Your task to perform on an android device: toggle javascript in the chrome app Image 0: 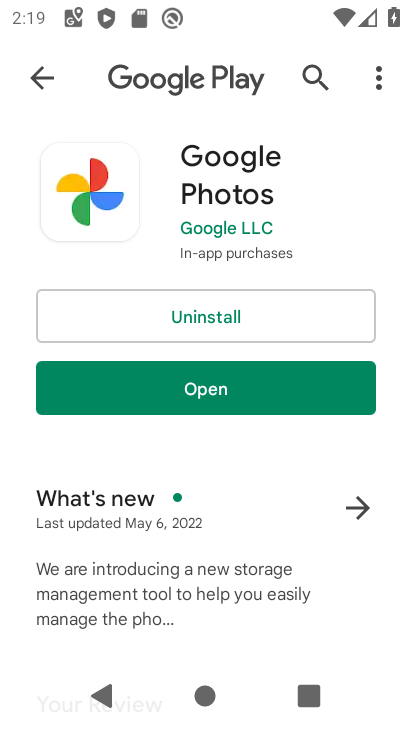
Step 0: press home button
Your task to perform on an android device: toggle javascript in the chrome app Image 1: 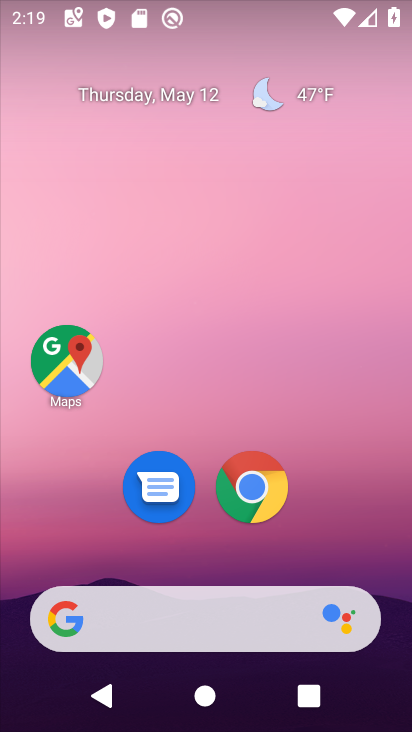
Step 1: click (252, 484)
Your task to perform on an android device: toggle javascript in the chrome app Image 2: 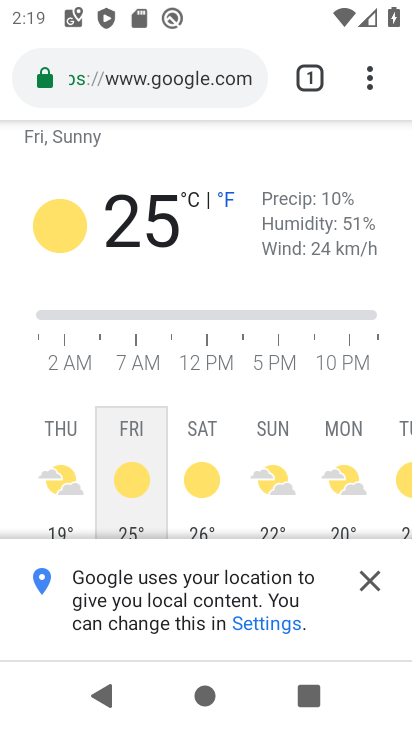
Step 2: drag from (372, 78) to (363, 322)
Your task to perform on an android device: toggle javascript in the chrome app Image 3: 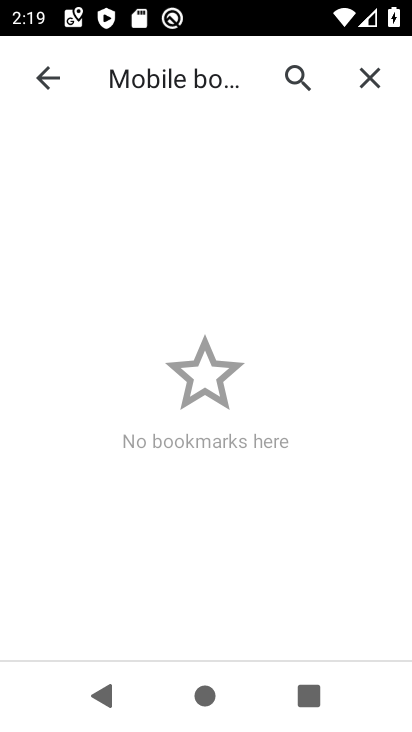
Step 3: click (365, 71)
Your task to perform on an android device: toggle javascript in the chrome app Image 4: 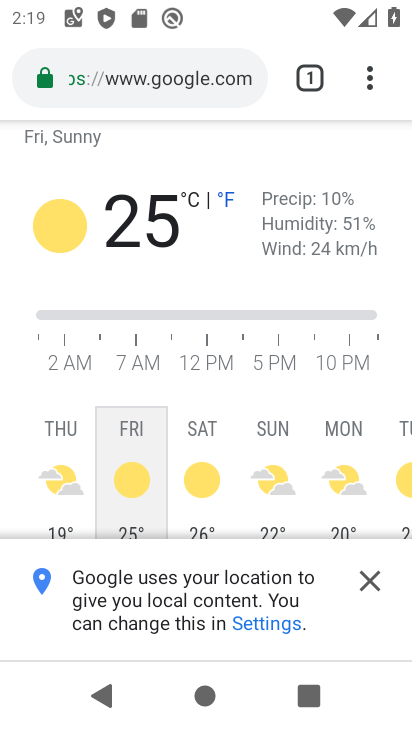
Step 4: drag from (371, 71) to (147, 564)
Your task to perform on an android device: toggle javascript in the chrome app Image 5: 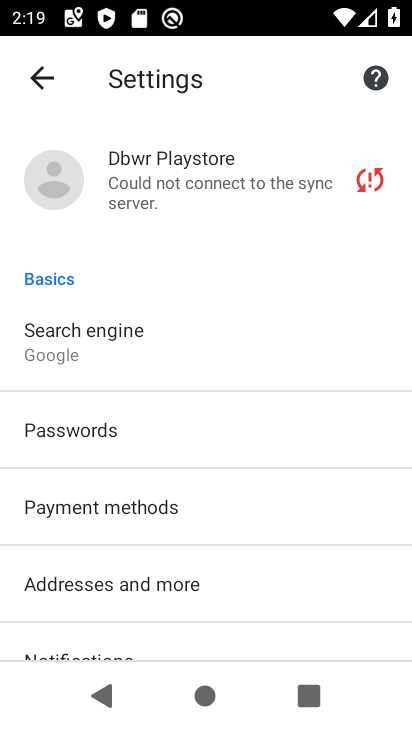
Step 5: drag from (211, 595) to (340, 165)
Your task to perform on an android device: toggle javascript in the chrome app Image 6: 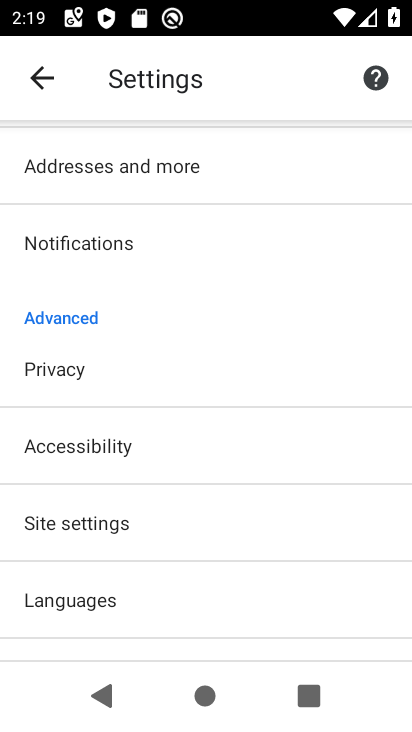
Step 6: click (129, 520)
Your task to perform on an android device: toggle javascript in the chrome app Image 7: 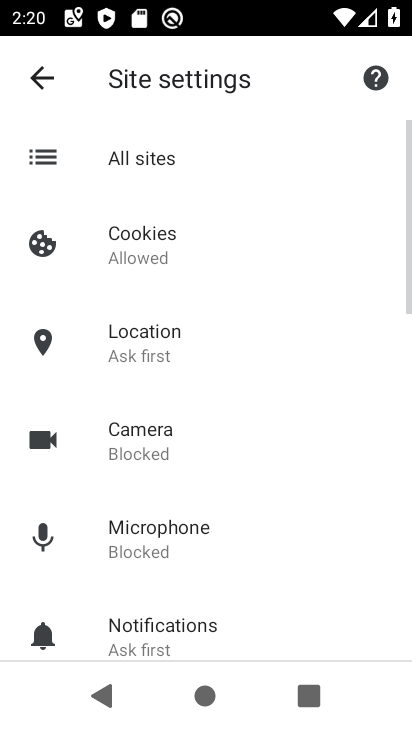
Step 7: drag from (201, 604) to (313, 166)
Your task to perform on an android device: toggle javascript in the chrome app Image 8: 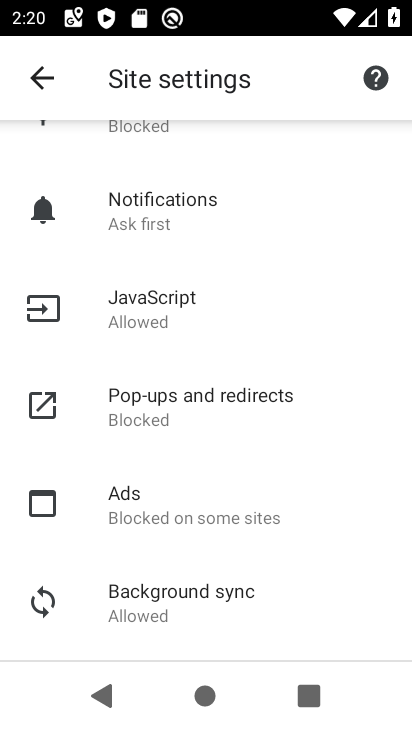
Step 8: click (211, 404)
Your task to perform on an android device: toggle javascript in the chrome app Image 9: 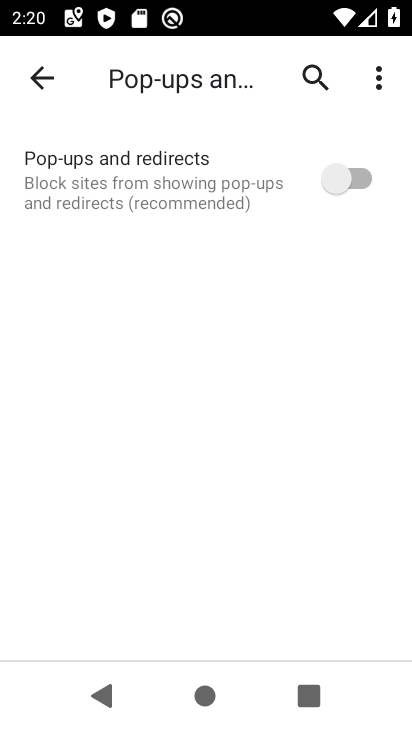
Step 9: click (39, 85)
Your task to perform on an android device: toggle javascript in the chrome app Image 10: 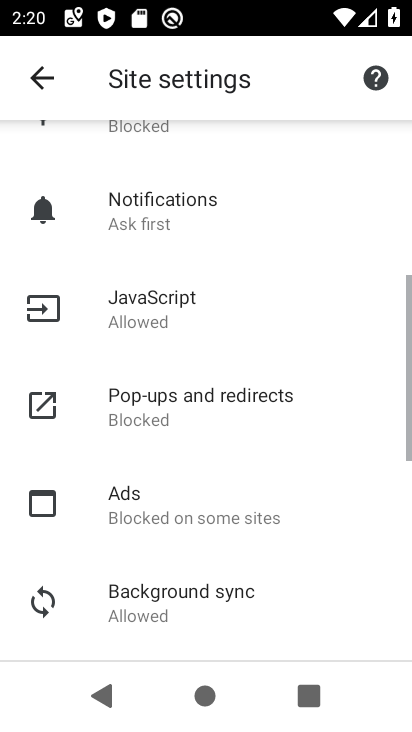
Step 10: click (205, 306)
Your task to perform on an android device: toggle javascript in the chrome app Image 11: 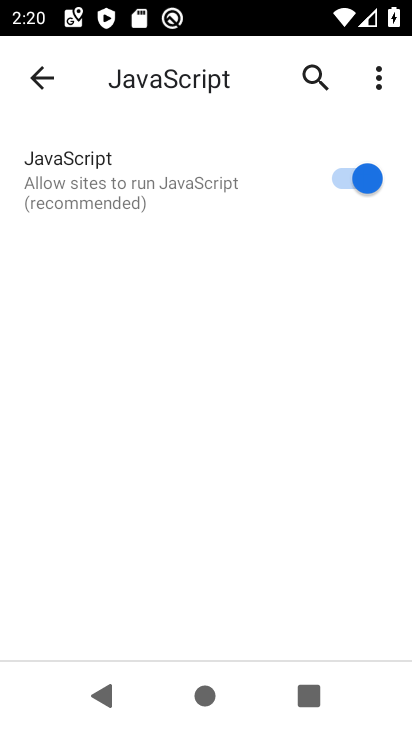
Step 11: click (347, 178)
Your task to perform on an android device: toggle javascript in the chrome app Image 12: 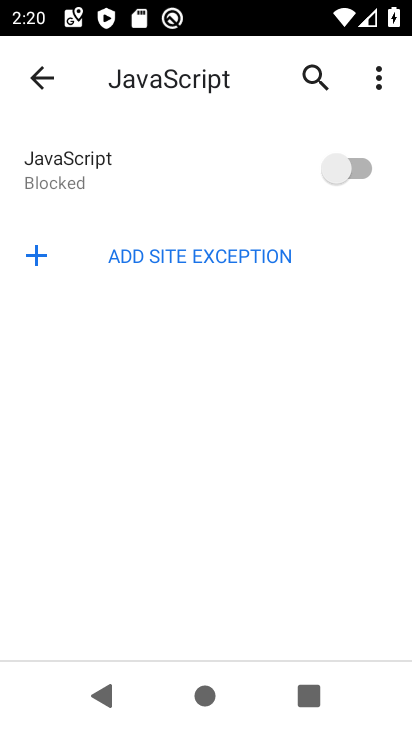
Step 12: task complete